Your task to perform on an android device: Go to Reddit.com Image 0: 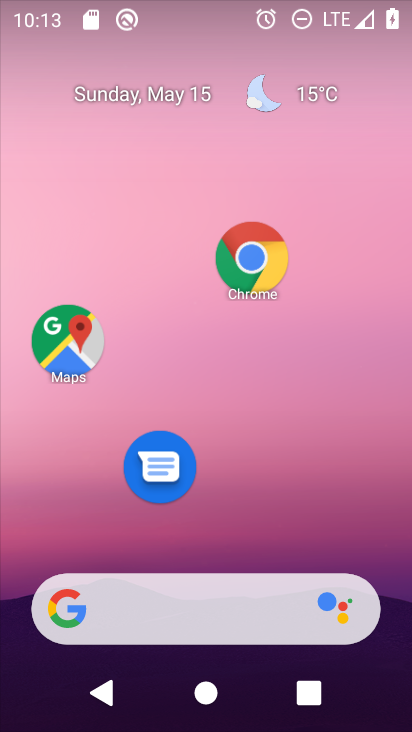
Step 0: click (193, 591)
Your task to perform on an android device: Go to Reddit.com Image 1: 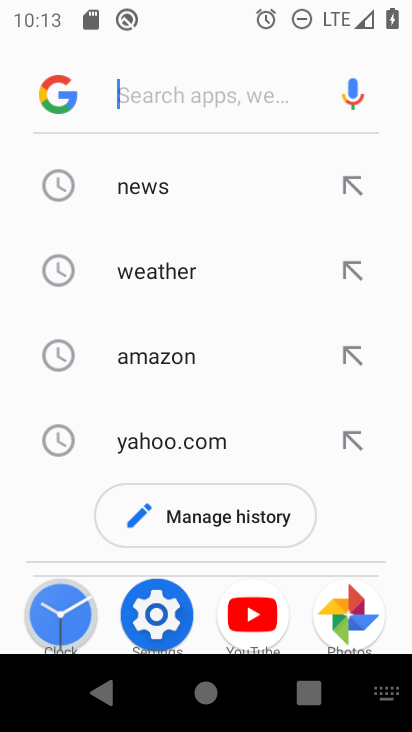
Step 1: type "reddit"
Your task to perform on an android device: Go to Reddit.com Image 2: 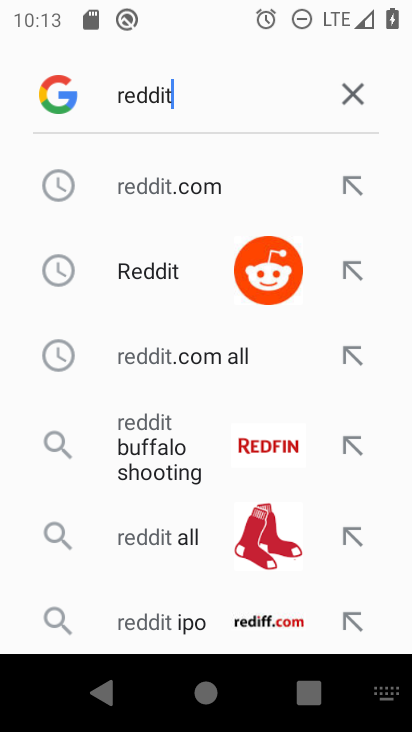
Step 2: click (227, 186)
Your task to perform on an android device: Go to Reddit.com Image 3: 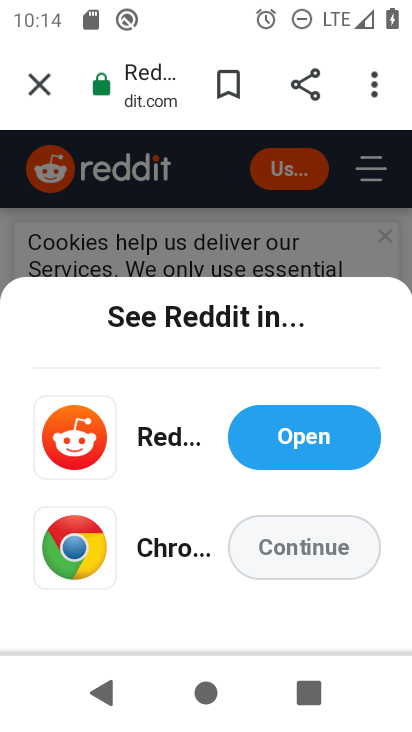
Step 3: task complete